Your task to perform on an android device: Open calendar and show me the third week of next month Image 0: 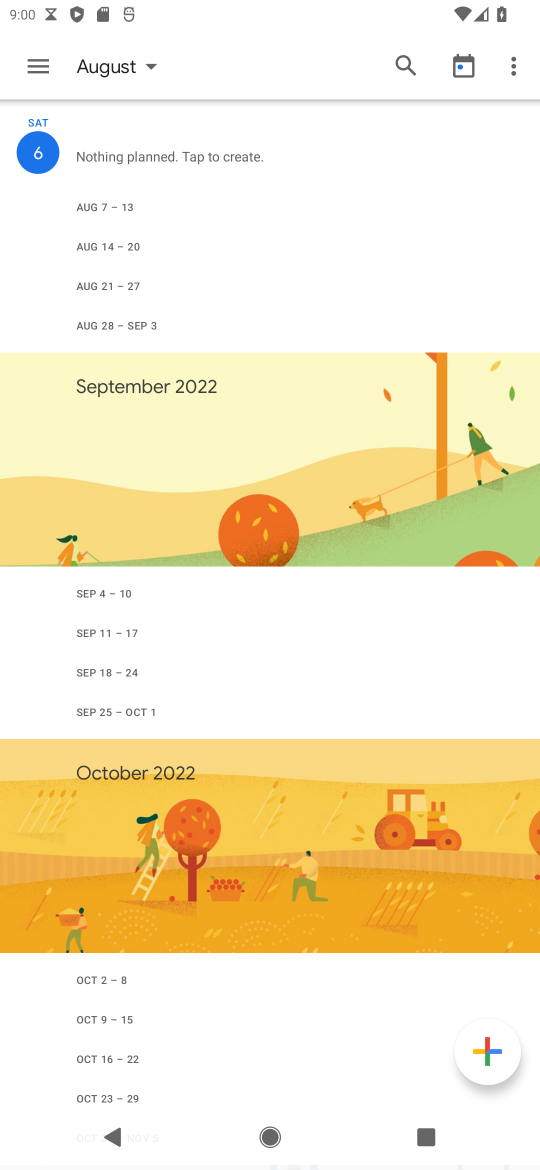
Step 0: press home button
Your task to perform on an android device: Open calendar and show me the third week of next month Image 1: 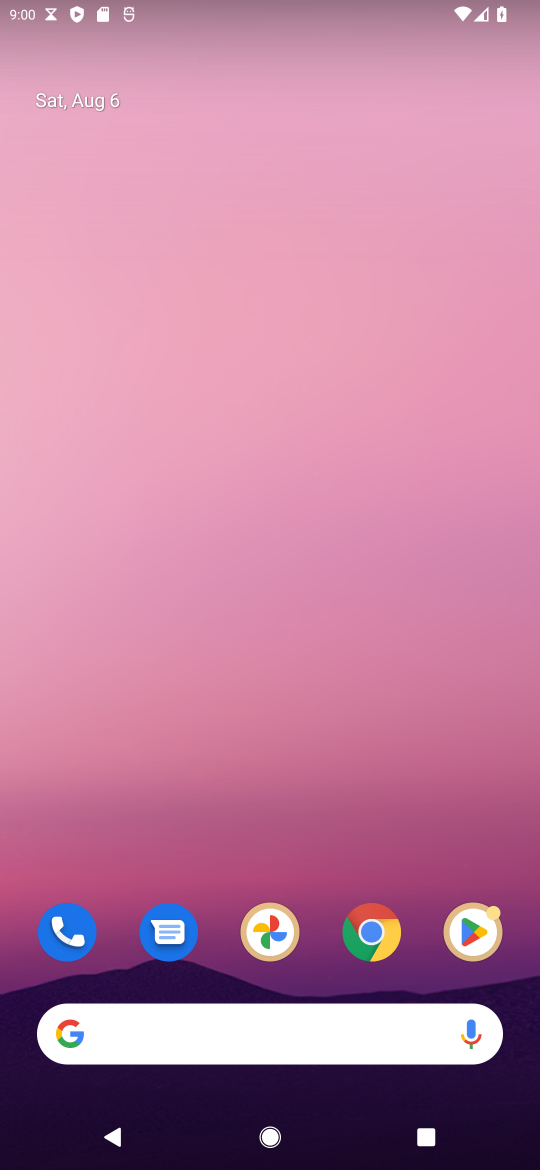
Step 1: drag from (235, 1037) to (260, 464)
Your task to perform on an android device: Open calendar and show me the third week of next month Image 2: 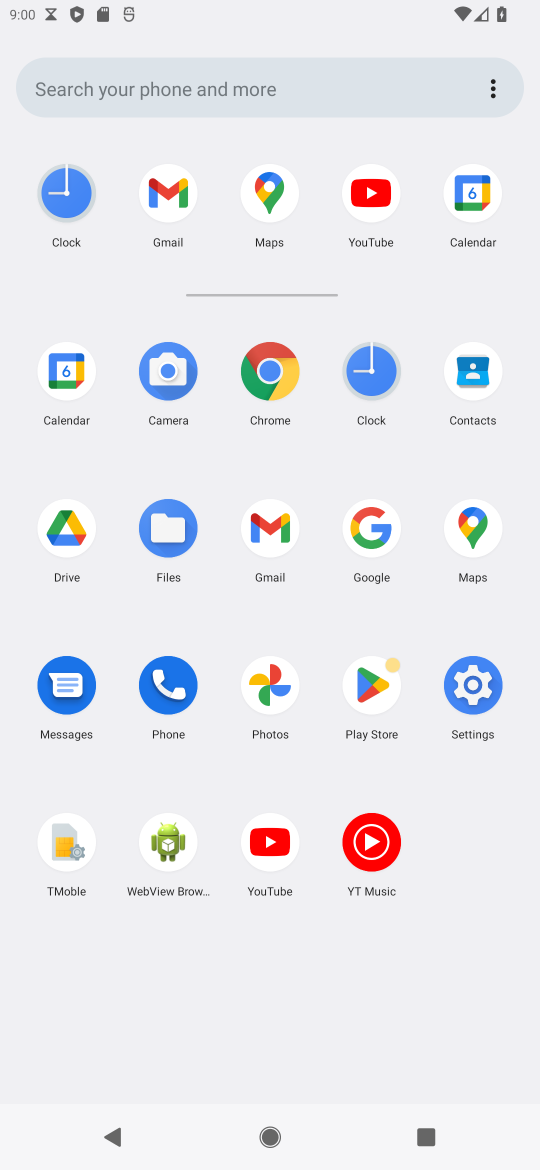
Step 2: click (69, 370)
Your task to perform on an android device: Open calendar and show me the third week of next month Image 3: 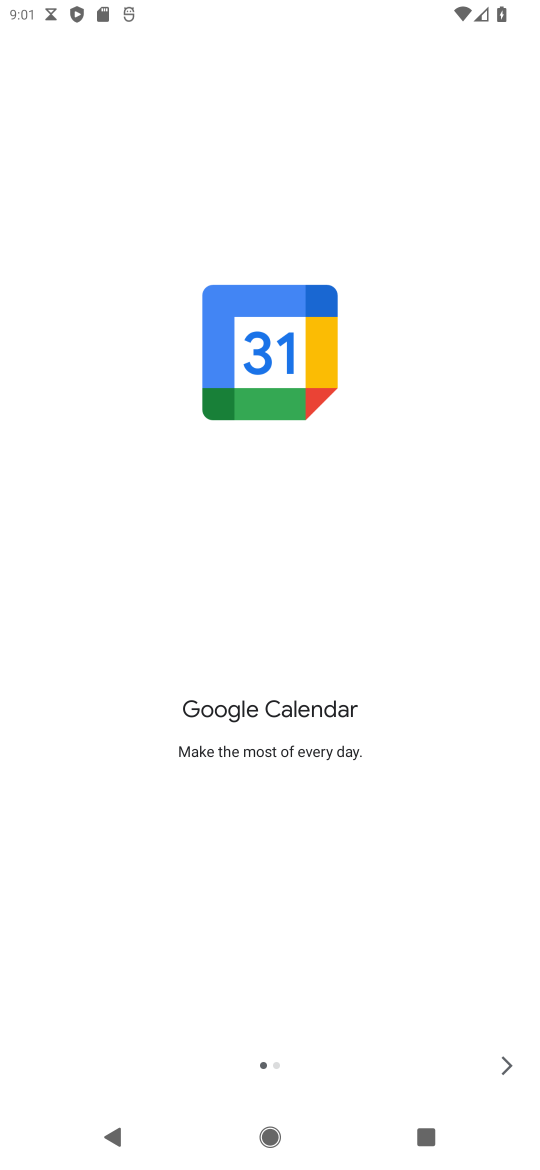
Step 3: click (501, 1057)
Your task to perform on an android device: Open calendar and show me the third week of next month Image 4: 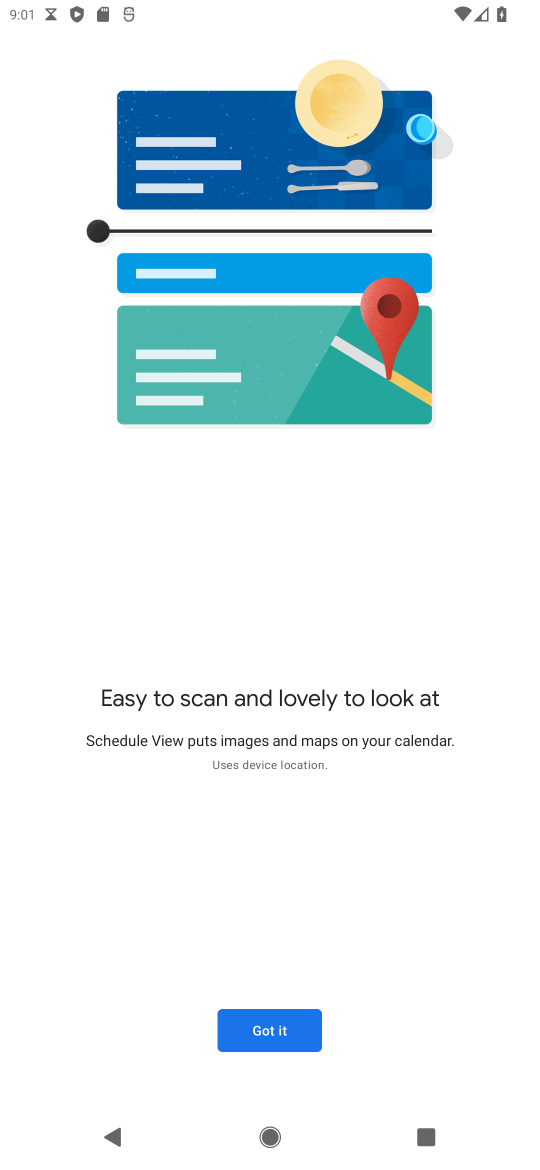
Step 4: click (267, 1027)
Your task to perform on an android device: Open calendar and show me the third week of next month Image 5: 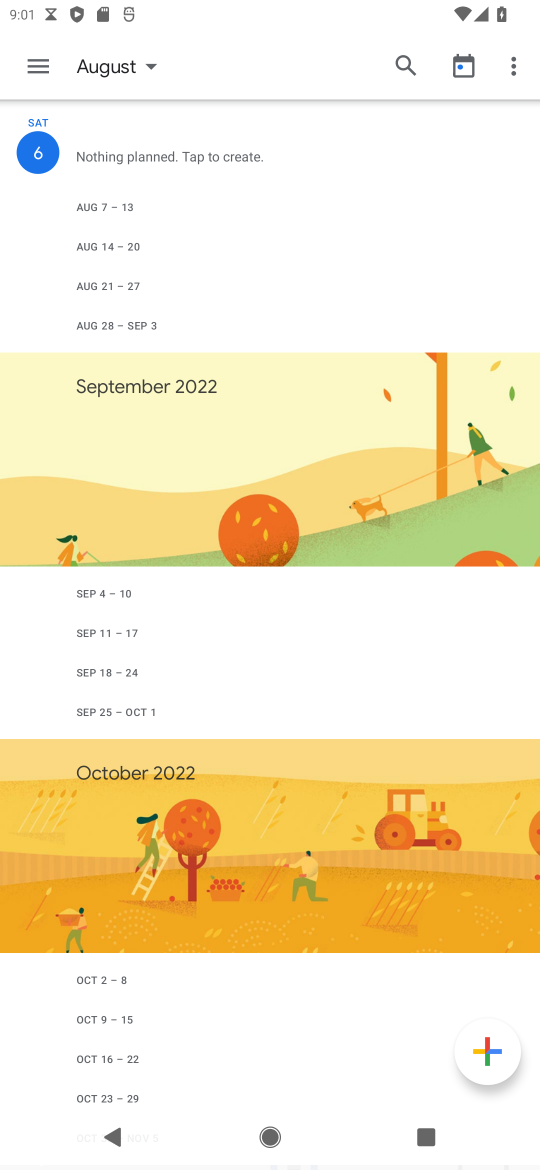
Step 5: click (149, 60)
Your task to perform on an android device: Open calendar and show me the third week of next month Image 6: 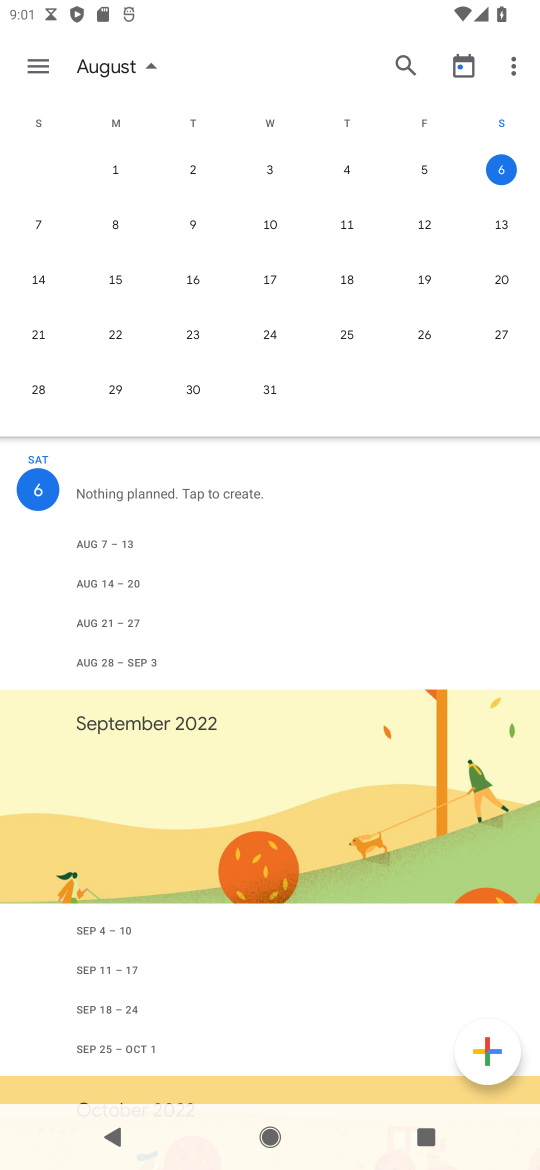
Step 6: drag from (504, 246) to (12, 311)
Your task to perform on an android device: Open calendar and show me the third week of next month Image 7: 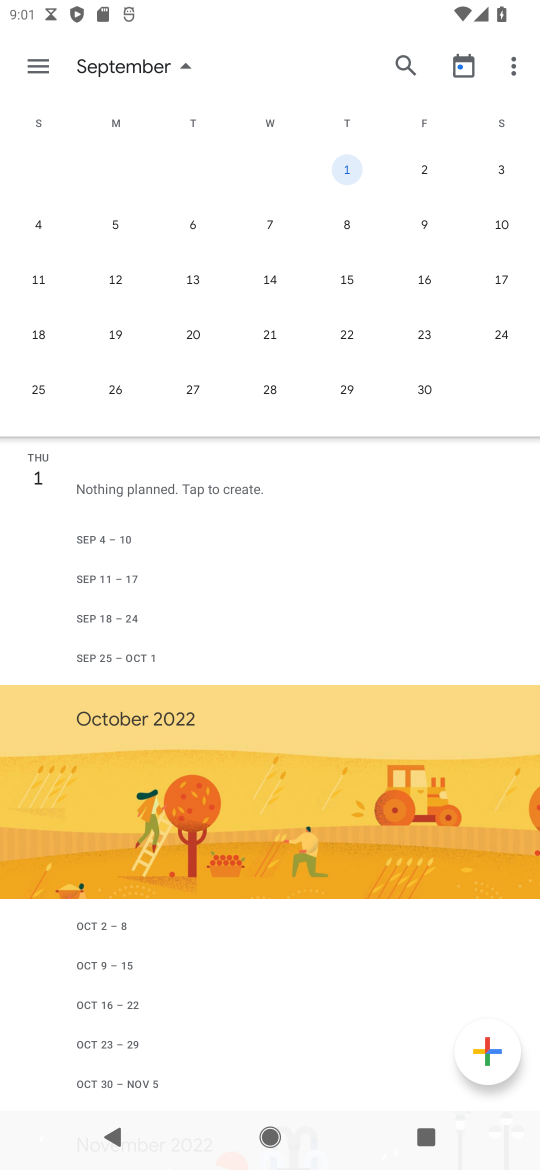
Step 7: click (122, 327)
Your task to perform on an android device: Open calendar and show me the third week of next month Image 8: 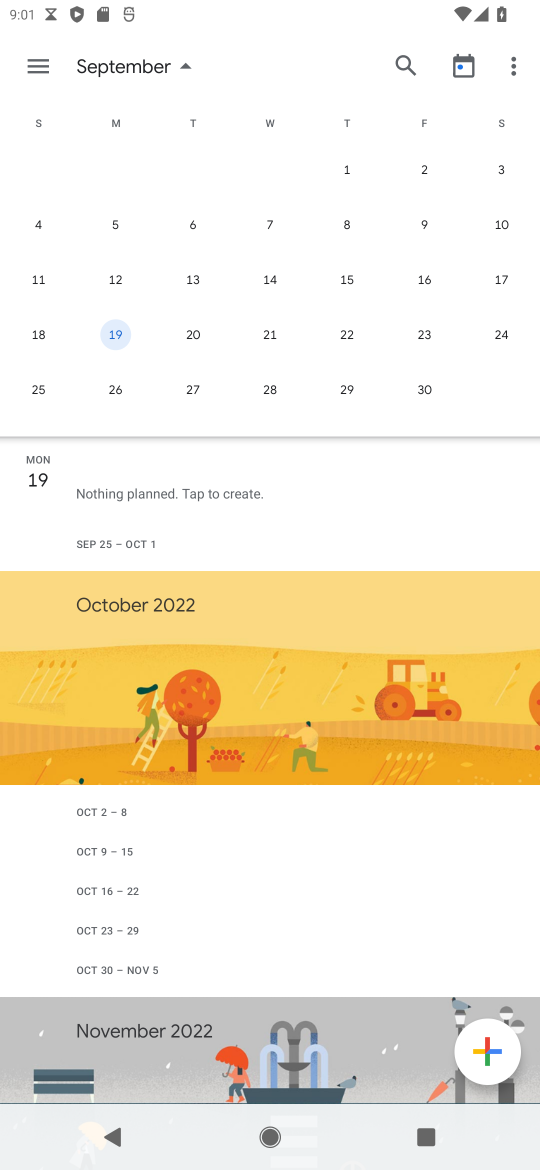
Step 8: click (26, 66)
Your task to perform on an android device: Open calendar and show me the third week of next month Image 9: 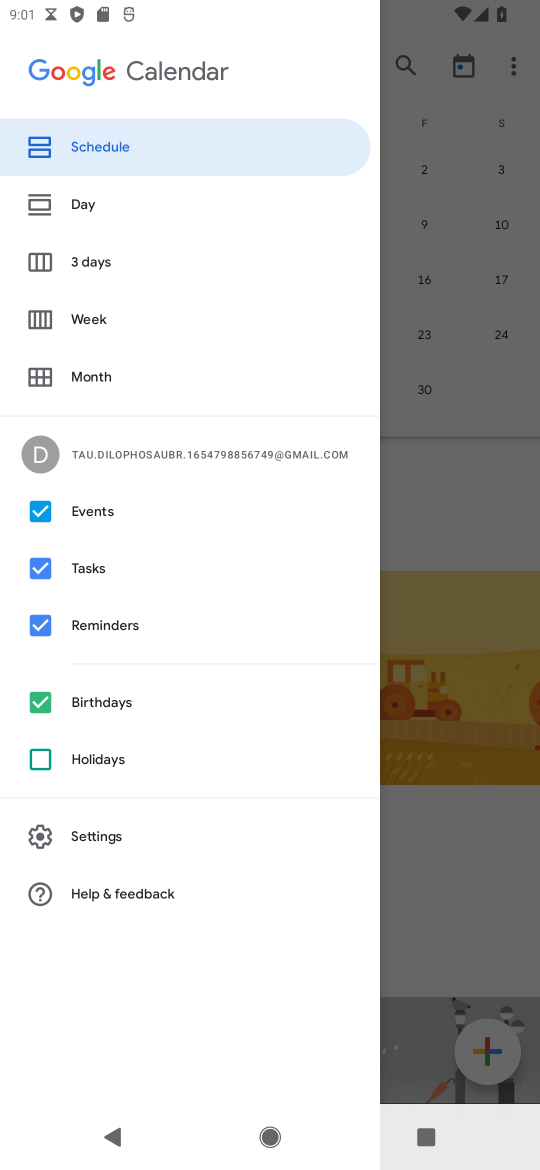
Step 9: click (114, 317)
Your task to perform on an android device: Open calendar and show me the third week of next month Image 10: 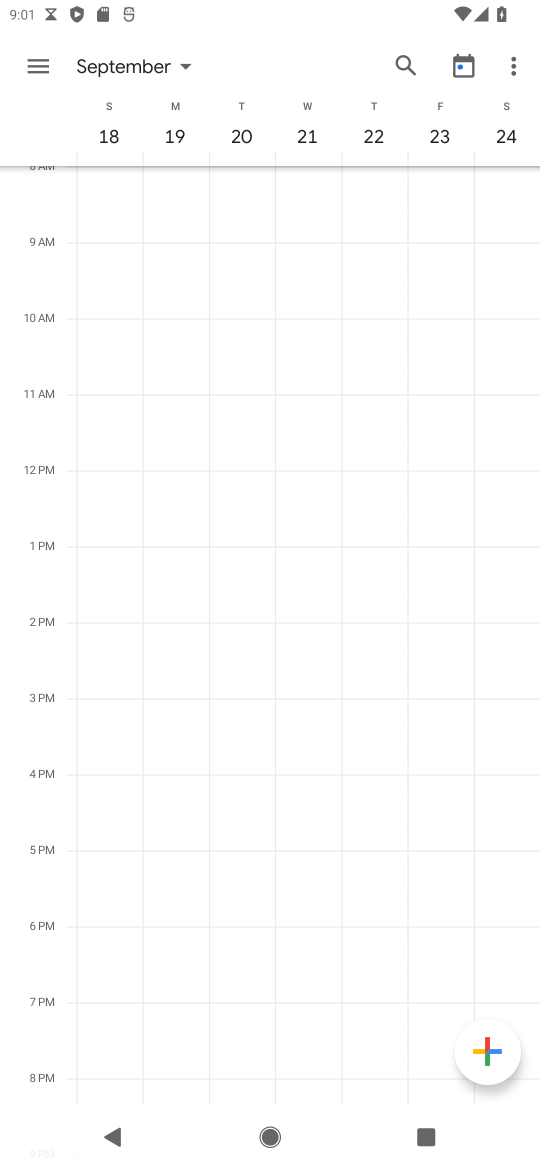
Step 10: task complete